Your task to perform on an android device: turn off location Image 0: 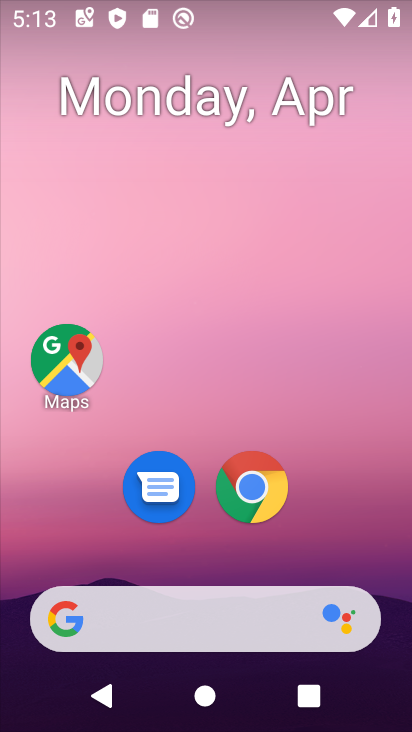
Step 0: drag from (345, 102) to (342, 67)
Your task to perform on an android device: turn off location Image 1: 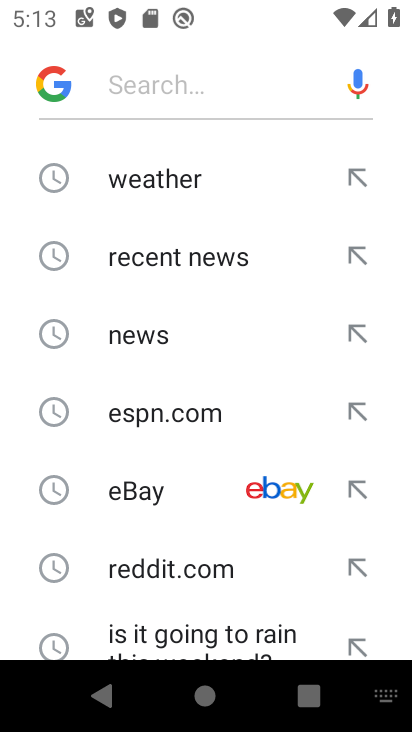
Step 1: press home button
Your task to perform on an android device: turn off location Image 2: 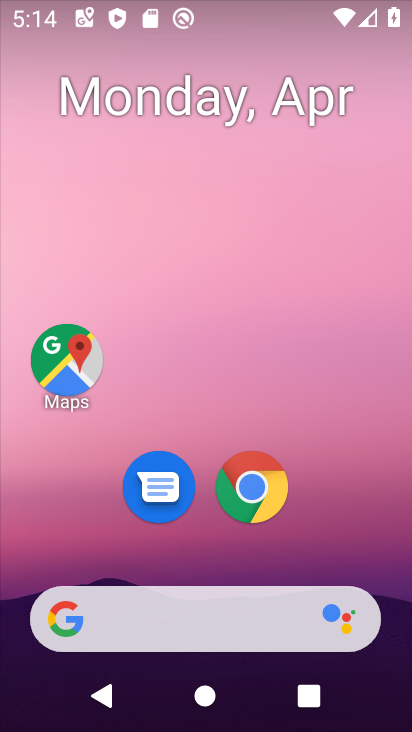
Step 2: drag from (378, 517) to (326, 127)
Your task to perform on an android device: turn off location Image 3: 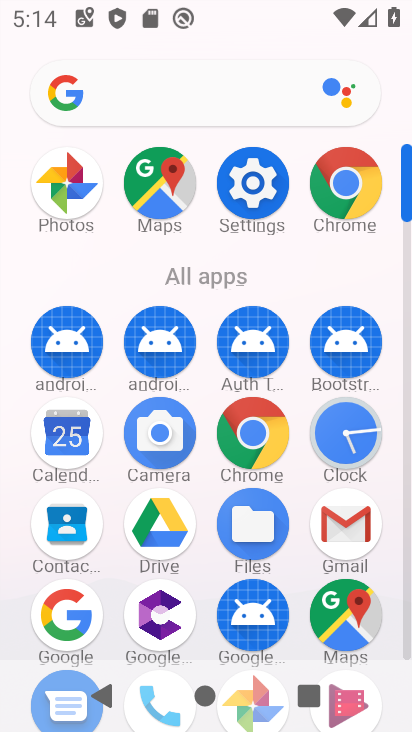
Step 3: click (245, 206)
Your task to perform on an android device: turn off location Image 4: 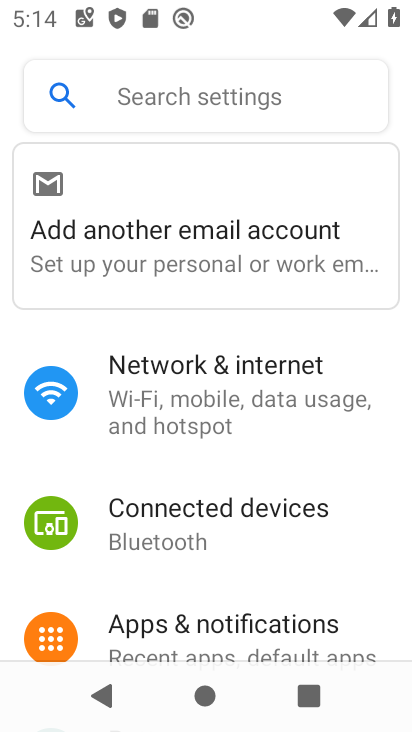
Step 4: drag from (301, 571) to (284, 229)
Your task to perform on an android device: turn off location Image 5: 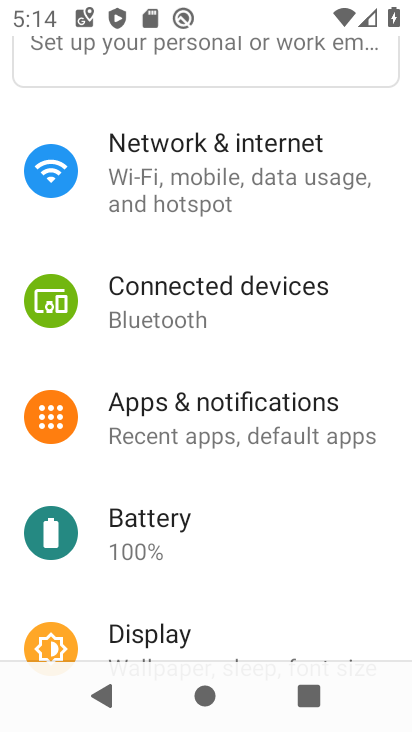
Step 5: drag from (348, 589) to (364, 138)
Your task to perform on an android device: turn off location Image 6: 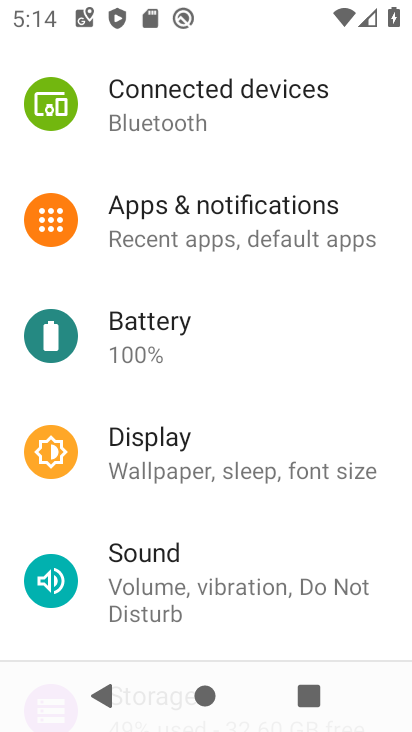
Step 6: drag from (321, 506) to (349, 127)
Your task to perform on an android device: turn off location Image 7: 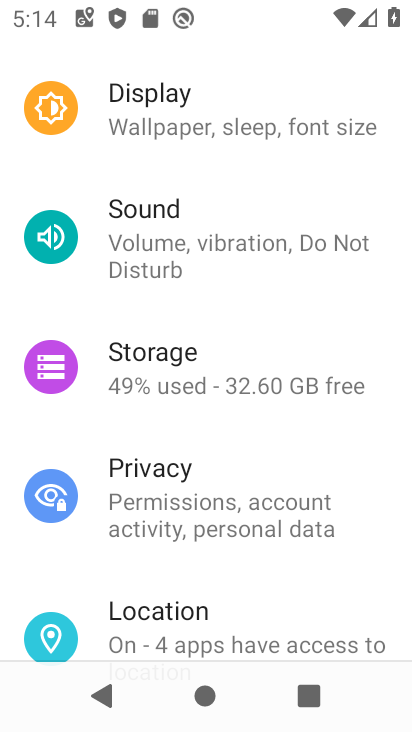
Step 7: click (304, 638)
Your task to perform on an android device: turn off location Image 8: 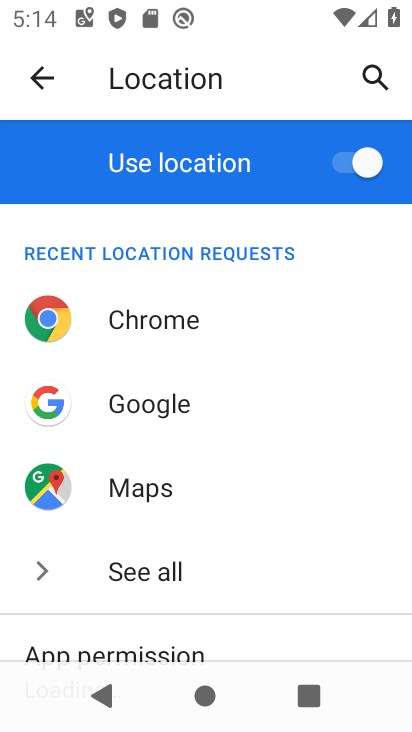
Step 8: click (341, 172)
Your task to perform on an android device: turn off location Image 9: 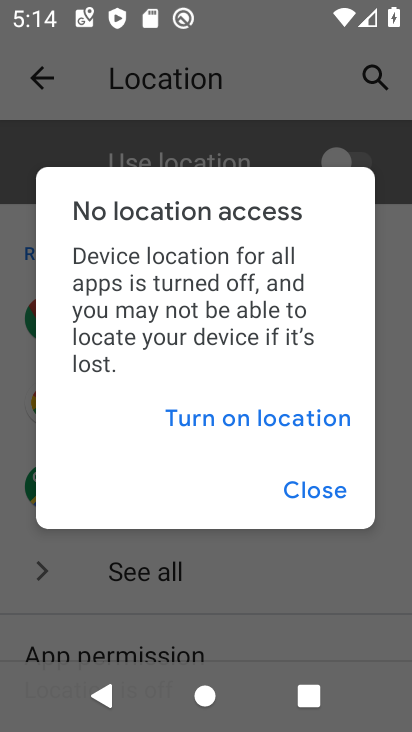
Step 9: click (338, 491)
Your task to perform on an android device: turn off location Image 10: 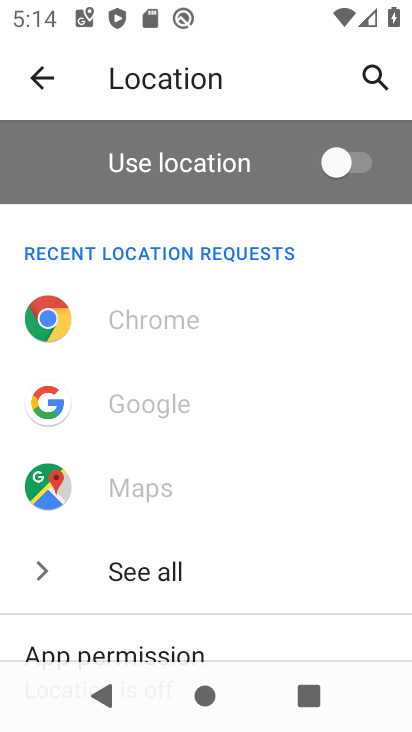
Step 10: task complete